Your task to perform on an android device: Open the web browser Image 0: 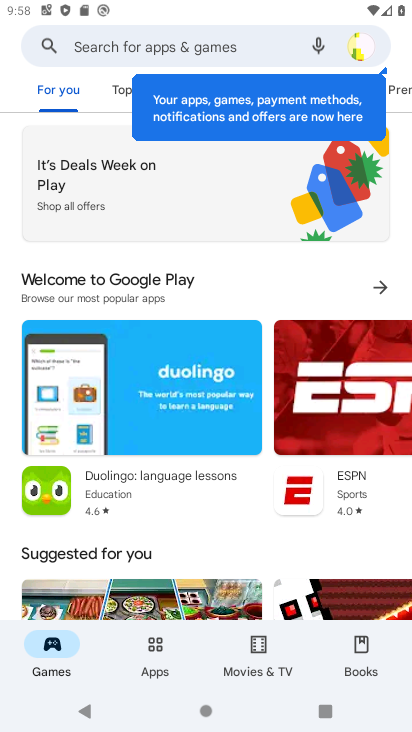
Step 0: press home button
Your task to perform on an android device: Open the web browser Image 1: 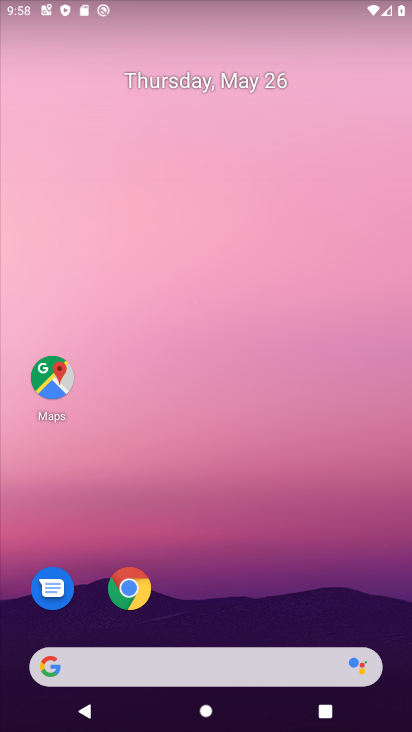
Step 1: click (128, 586)
Your task to perform on an android device: Open the web browser Image 2: 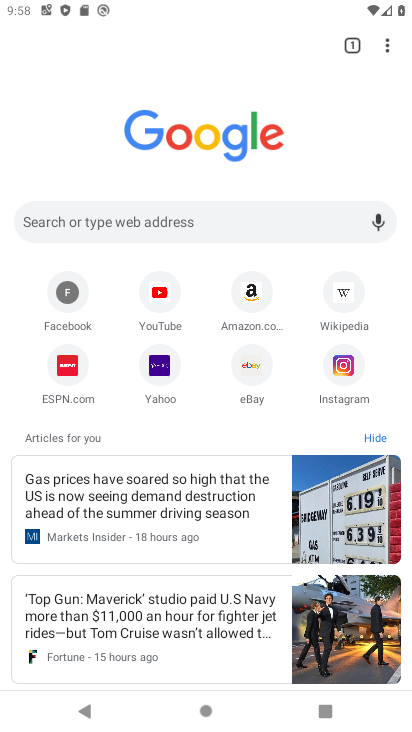
Step 2: task complete